Your task to perform on an android device: star an email in the gmail app Image 0: 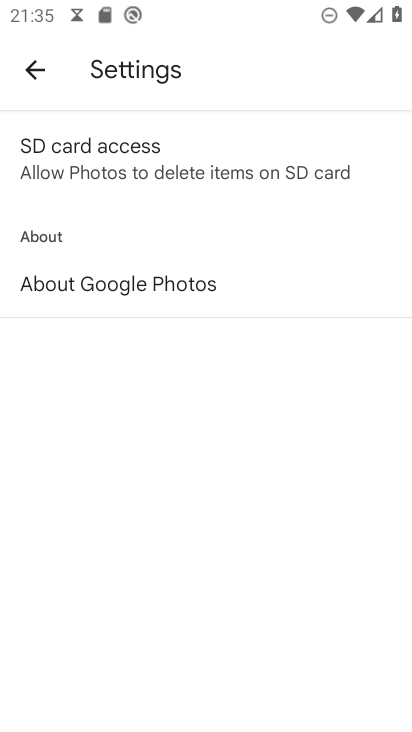
Step 0: press home button
Your task to perform on an android device: star an email in the gmail app Image 1: 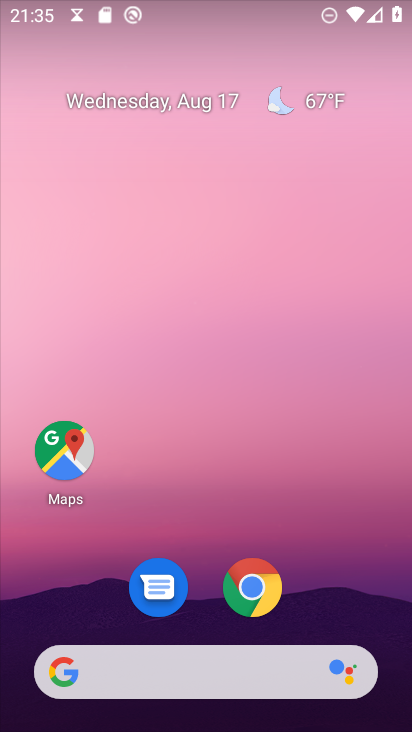
Step 1: drag from (15, 717) to (186, 260)
Your task to perform on an android device: star an email in the gmail app Image 2: 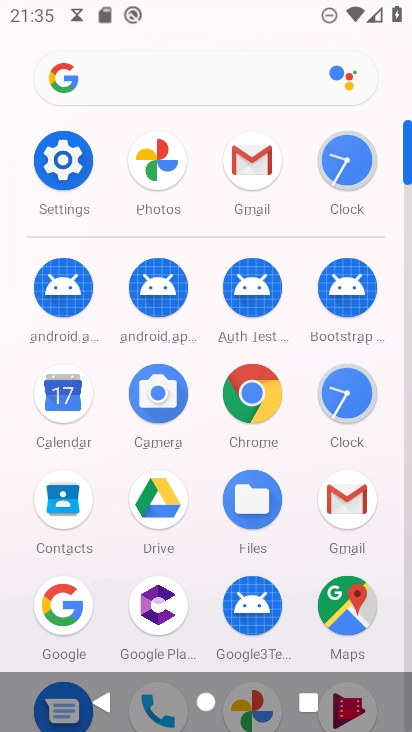
Step 2: click (344, 492)
Your task to perform on an android device: star an email in the gmail app Image 3: 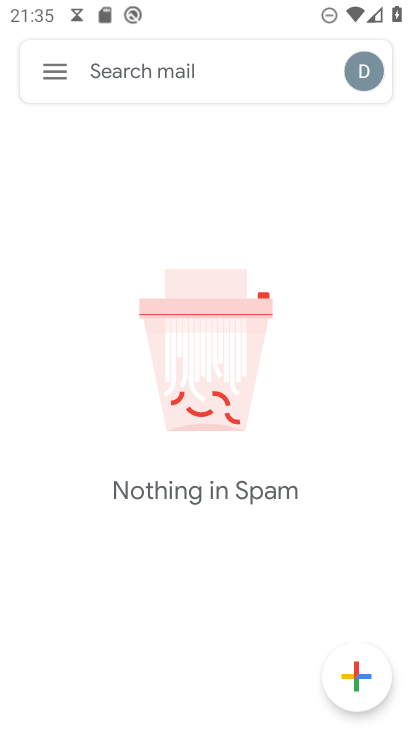
Step 3: click (57, 63)
Your task to perform on an android device: star an email in the gmail app Image 4: 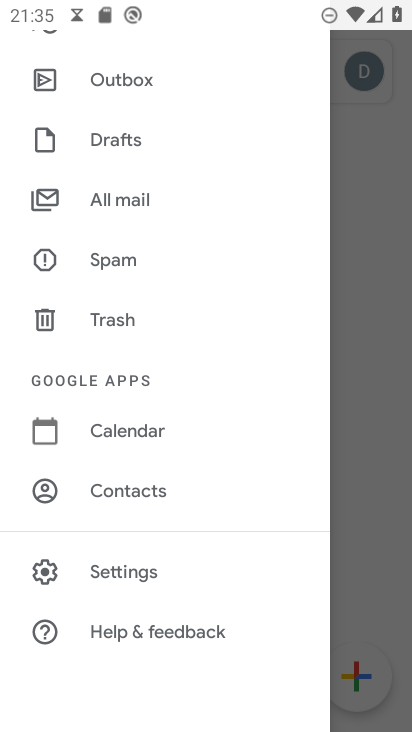
Step 4: drag from (256, 479) to (249, 63)
Your task to perform on an android device: star an email in the gmail app Image 5: 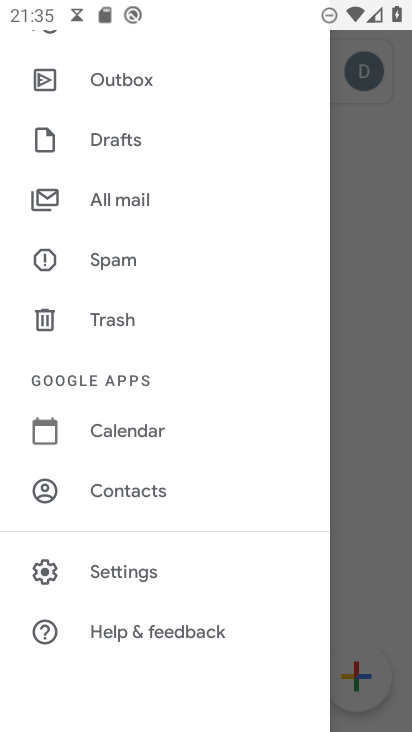
Step 5: drag from (242, 88) to (230, 627)
Your task to perform on an android device: star an email in the gmail app Image 6: 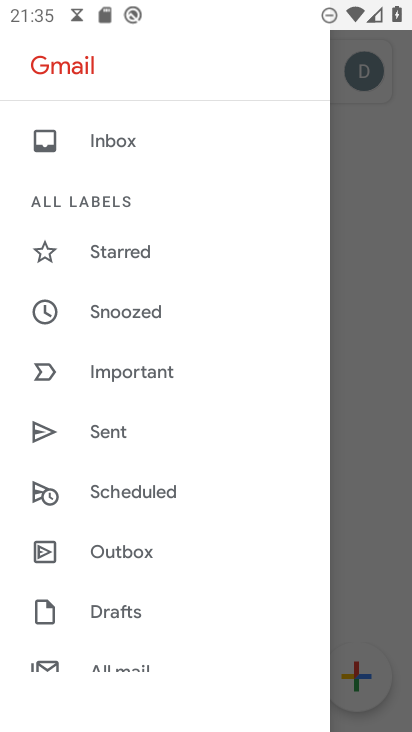
Step 6: click (111, 246)
Your task to perform on an android device: star an email in the gmail app Image 7: 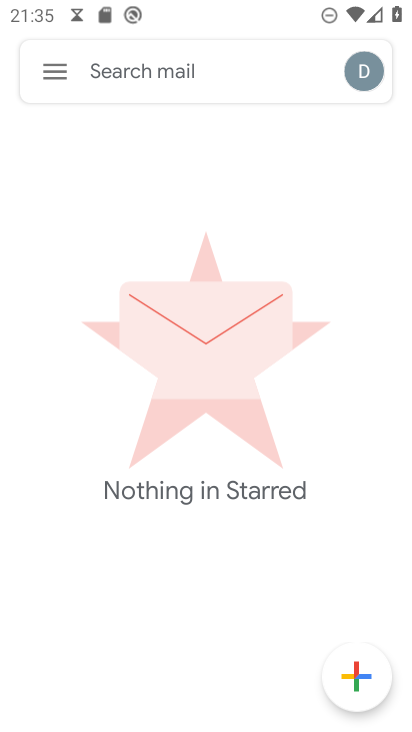
Step 7: task complete